Your task to perform on an android device: turn off notifications settings in the gmail app Image 0: 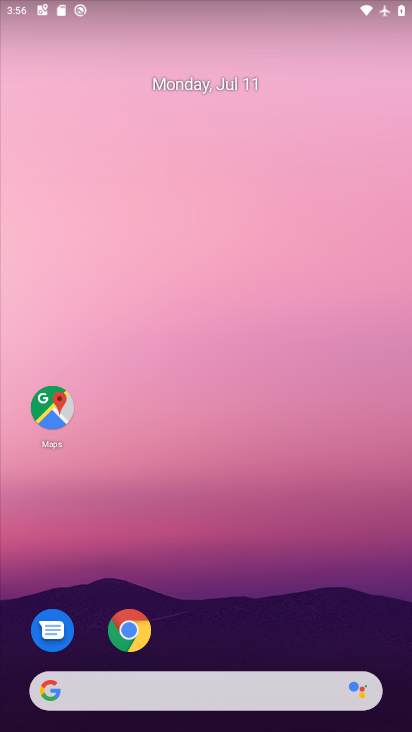
Step 0: drag from (294, 660) to (229, 247)
Your task to perform on an android device: turn off notifications settings in the gmail app Image 1: 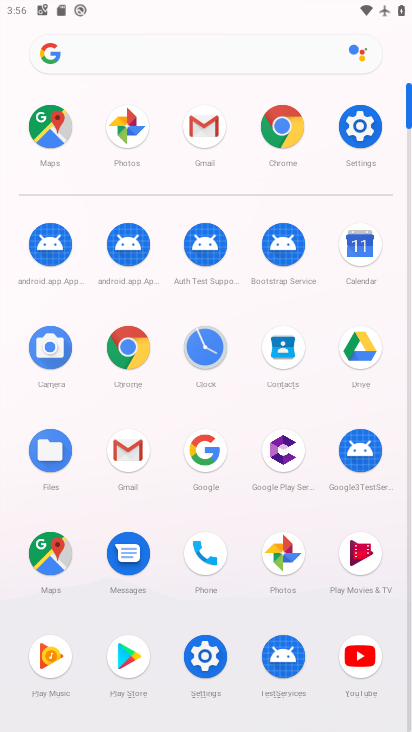
Step 1: click (356, 160)
Your task to perform on an android device: turn off notifications settings in the gmail app Image 2: 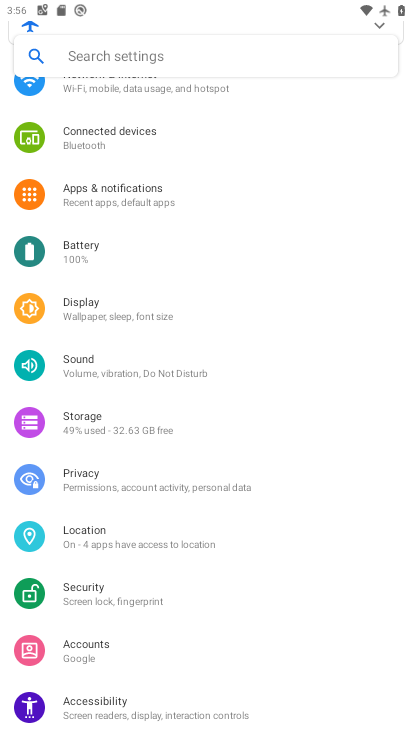
Step 2: click (238, 190)
Your task to perform on an android device: turn off notifications settings in the gmail app Image 3: 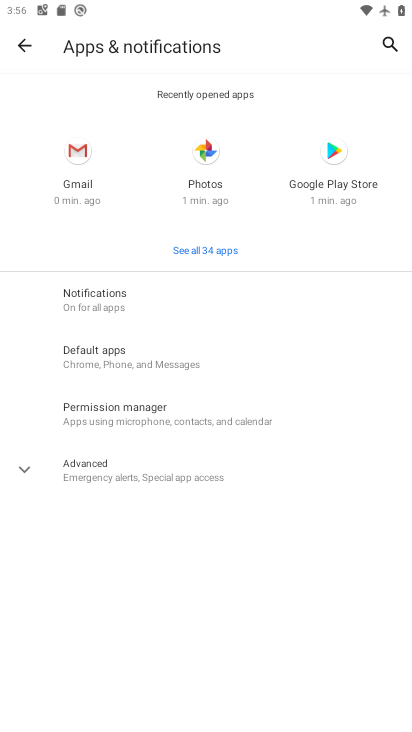
Step 3: click (188, 472)
Your task to perform on an android device: turn off notifications settings in the gmail app Image 4: 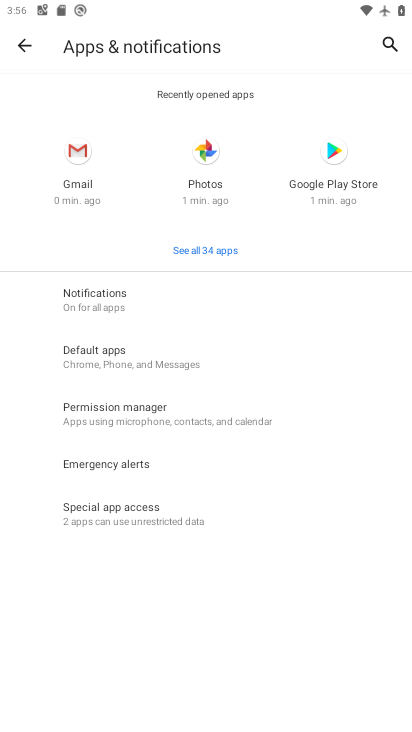
Step 4: task complete